Your task to perform on an android device: Open battery settings Image 0: 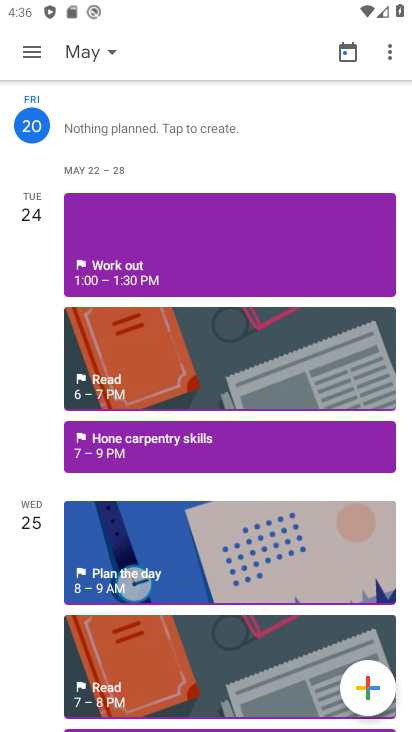
Step 0: press home button
Your task to perform on an android device: Open battery settings Image 1: 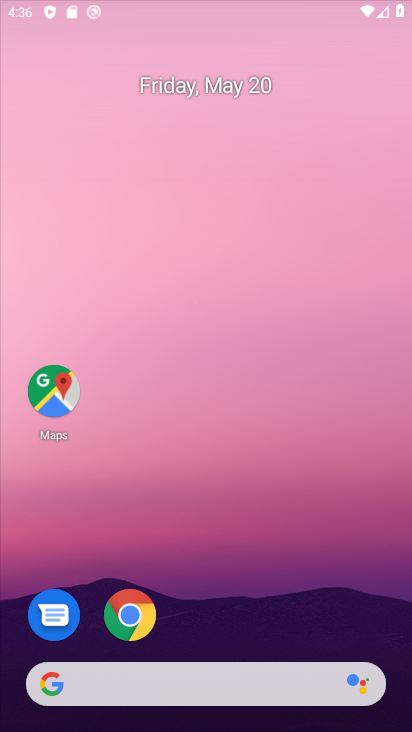
Step 1: drag from (229, 704) to (277, 219)
Your task to perform on an android device: Open battery settings Image 2: 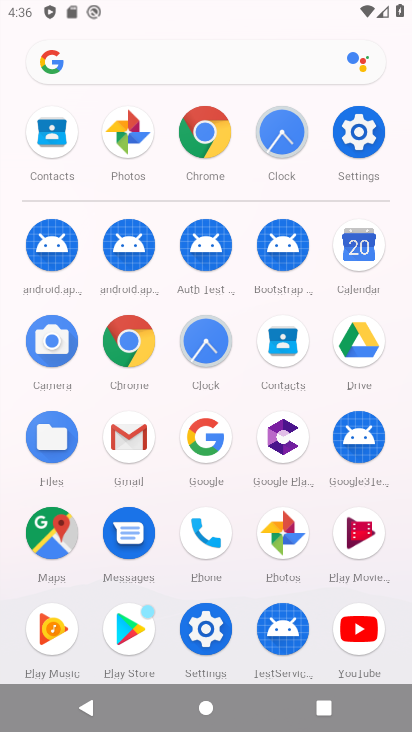
Step 2: click (363, 146)
Your task to perform on an android device: Open battery settings Image 3: 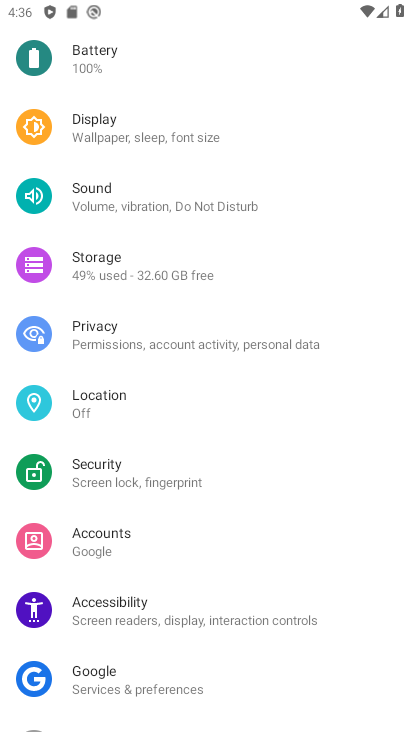
Step 3: drag from (189, 315) to (180, 573)
Your task to perform on an android device: Open battery settings Image 4: 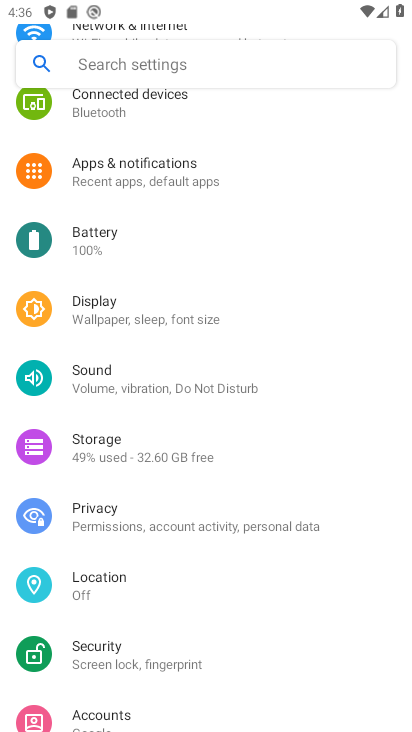
Step 4: click (154, 232)
Your task to perform on an android device: Open battery settings Image 5: 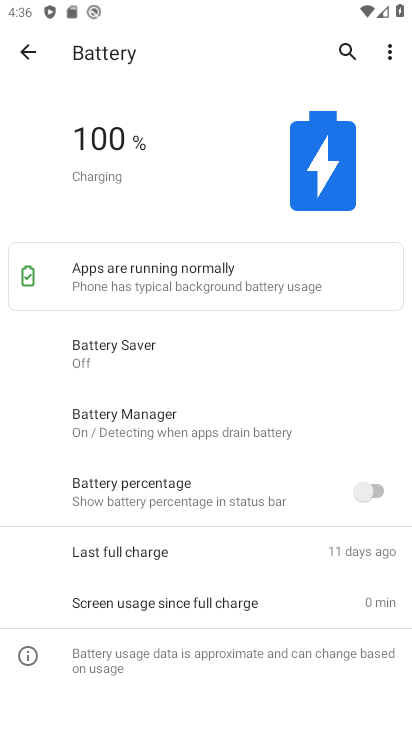
Step 5: task complete